Your task to perform on an android device: Show me the alarms in the clock app Image 0: 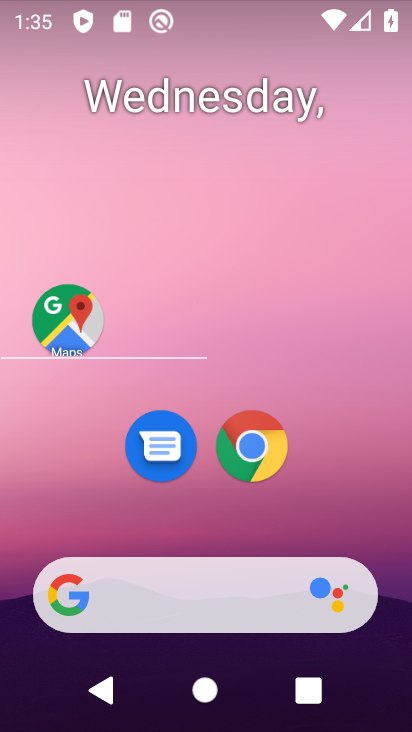
Step 0: click (255, 483)
Your task to perform on an android device: Show me the alarms in the clock app Image 1: 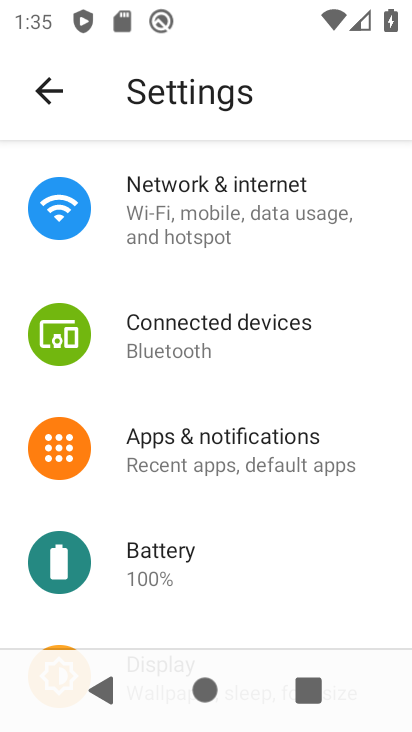
Step 1: press home button
Your task to perform on an android device: Show me the alarms in the clock app Image 2: 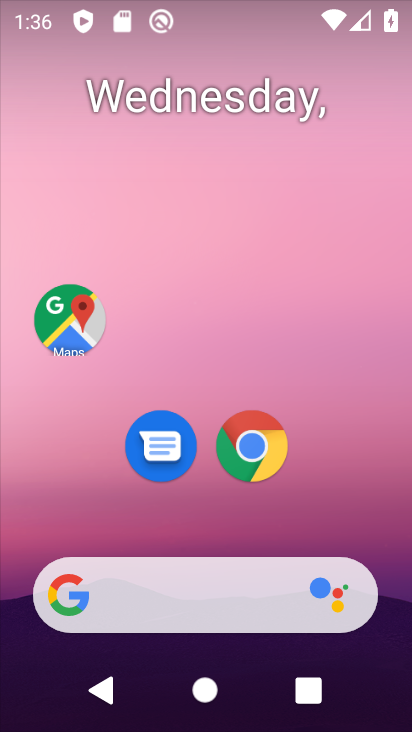
Step 2: drag from (292, 466) to (266, 119)
Your task to perform on an android device: Show me the alarms in the clock app Image 3: 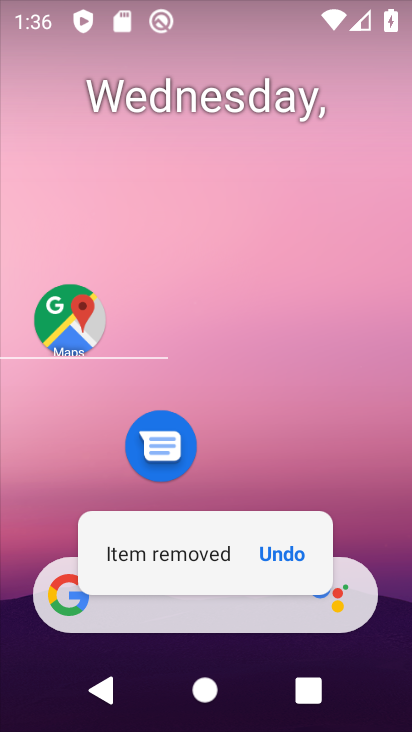
Step 3: drag from (276, 479) to (190, 29)
Your task to perform on an android device: Show me the alarms in the clock app Image 4: 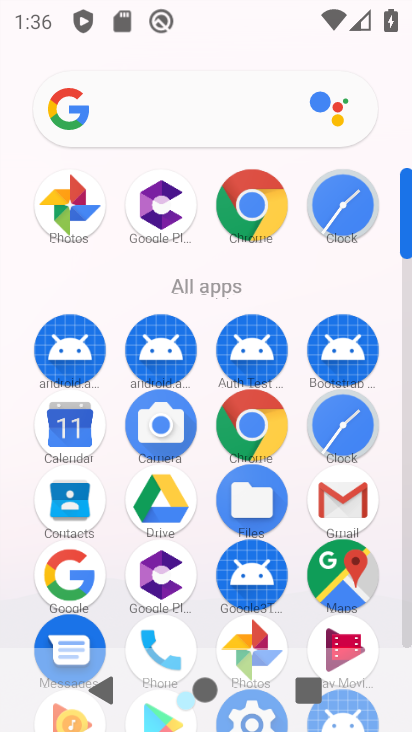
Step 4: click (356, 232)
Your task to perform on an android device: Show me the alarms in the clock app Image 5: 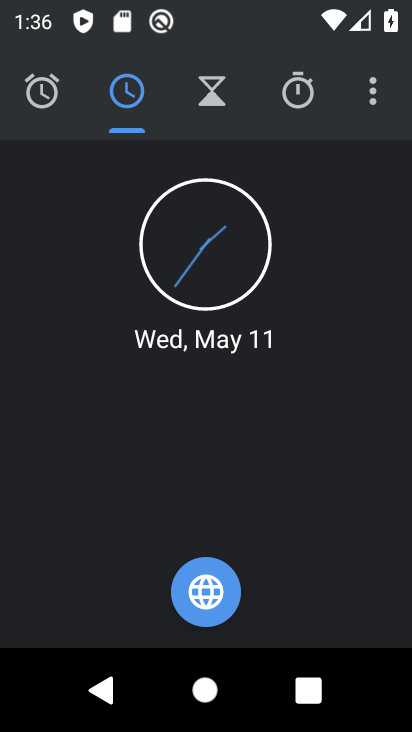
Step 5: click (283, 99)
Your task to perform on an android device: Show me the alarms in the clock app Image 6: 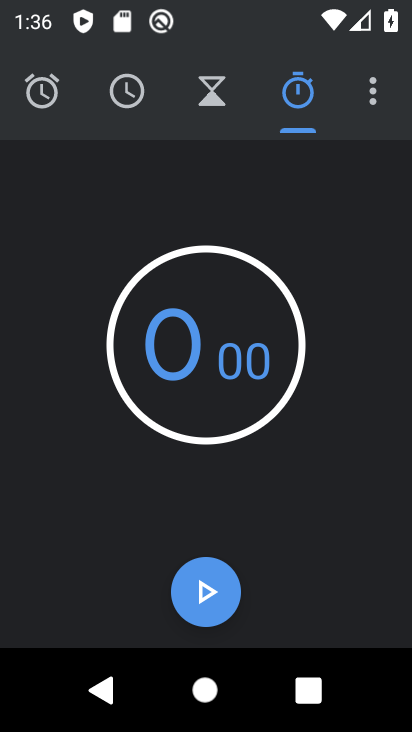
Step 6: click (64, 82)
Your task to perform on an android device: Show me the alarms in the clock app Image 7: 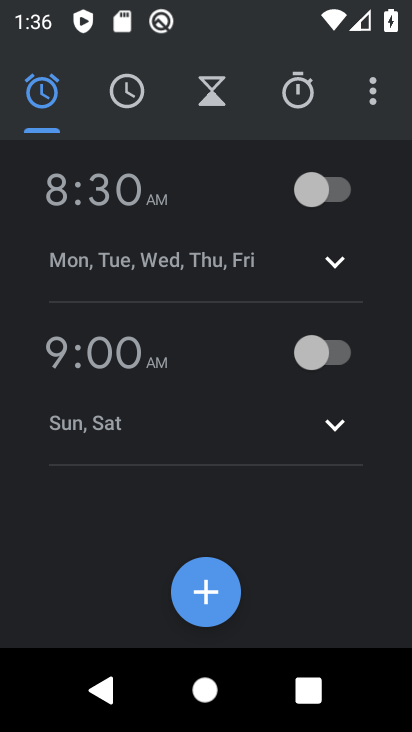
Step 7: task complete